Your task to perform on an android device: Go to Android settings Image 0: 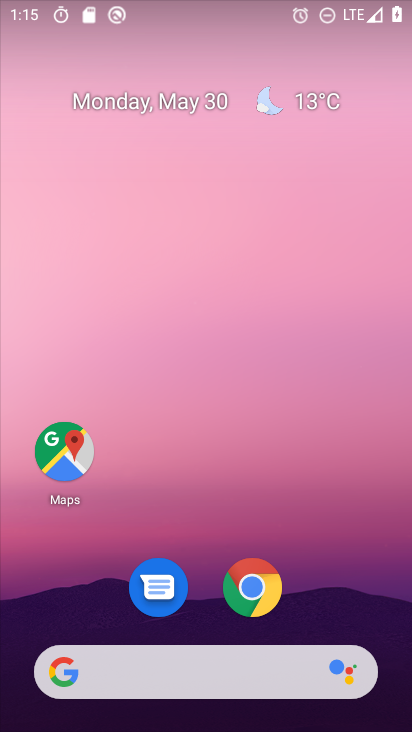
Step 0: drag from (364, 566) to (284, 7)
Your task to perform on an android device: Go to Android settings Image 1: 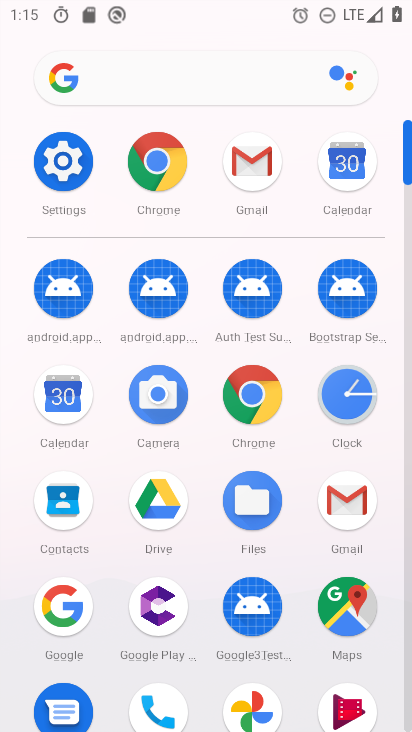
Step 1: click (64, 171)
Your task to perform on an android device: Go to Android settings Image 2: 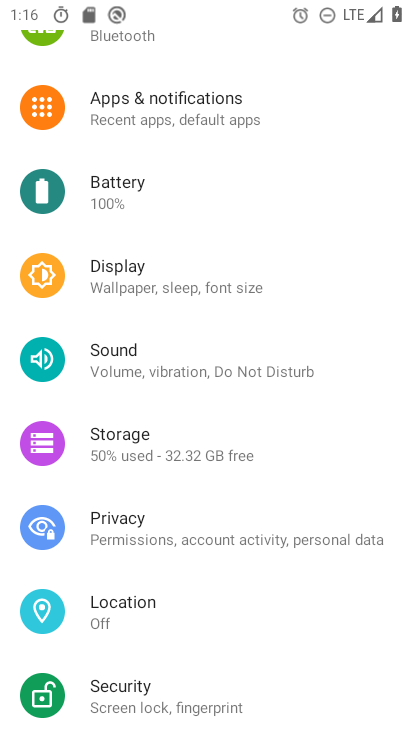
Step 2: task complete